Your task to perform on an android device: Open battery settings Image 0: 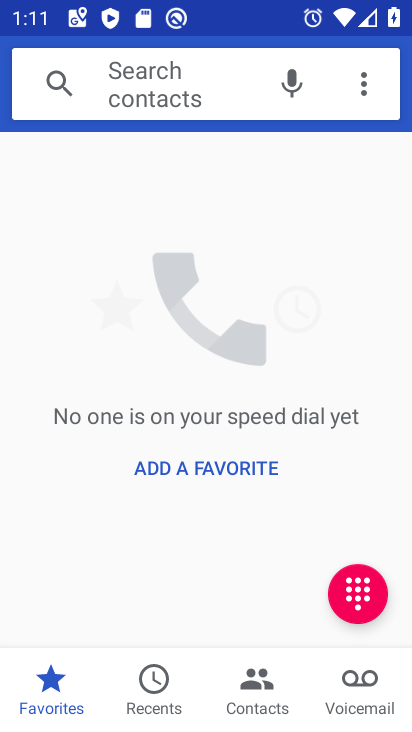
Step 0: press home button
Your task to perform on an android device: Open battery settings Image 1: 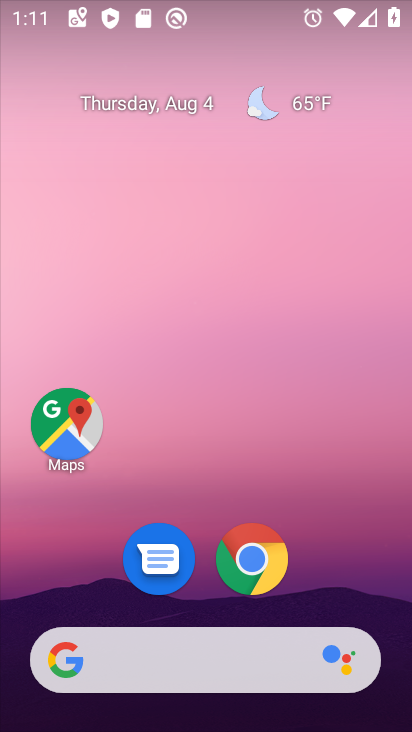
Step 1: drag from (210, 654) to (276, 98)
Your task to perform on an android device: Open battery settings Image 2: 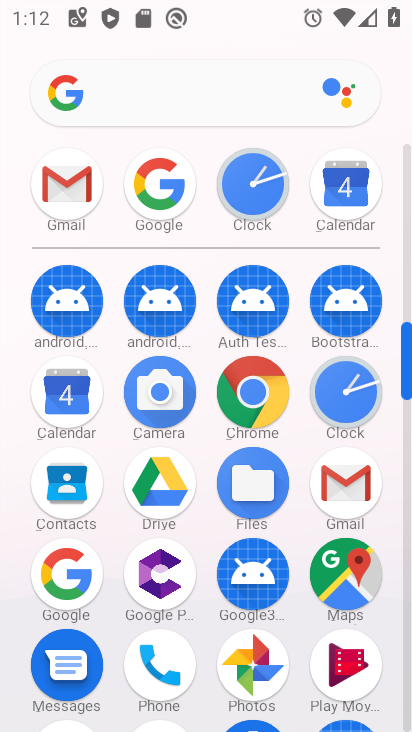
Step 2: drag from (212, 528) to (195, 288)
Your task to perform on an android device: Open battery settings Image 3: 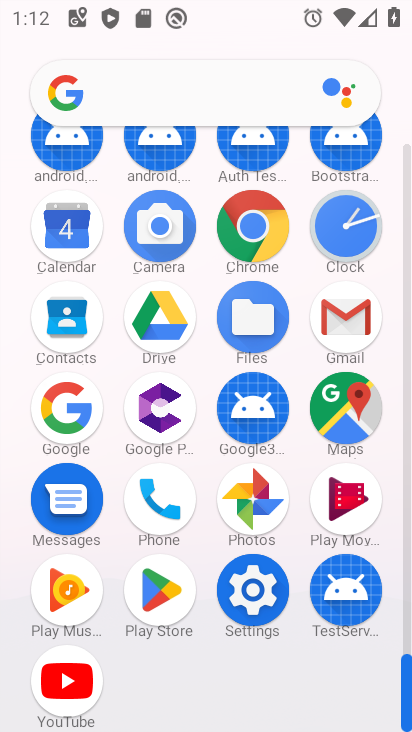
Step 3: click (252, 589)
Your task to perform on an android device: Open battery settings Image 4: 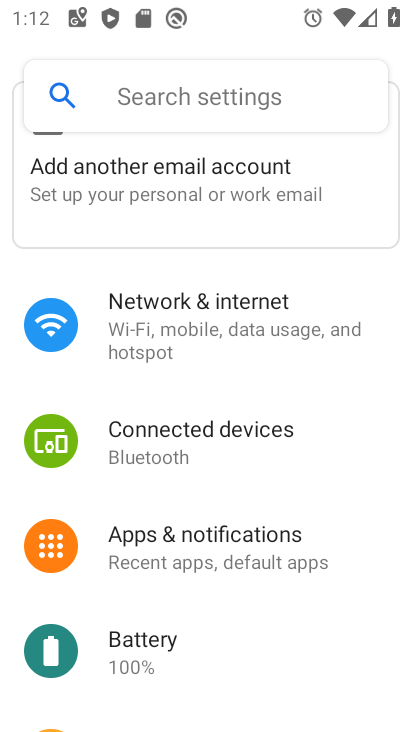
Step 4: drag from (183, 586) to (238, 463)
Your task to perform on an android device: Open battery settings Image 5: 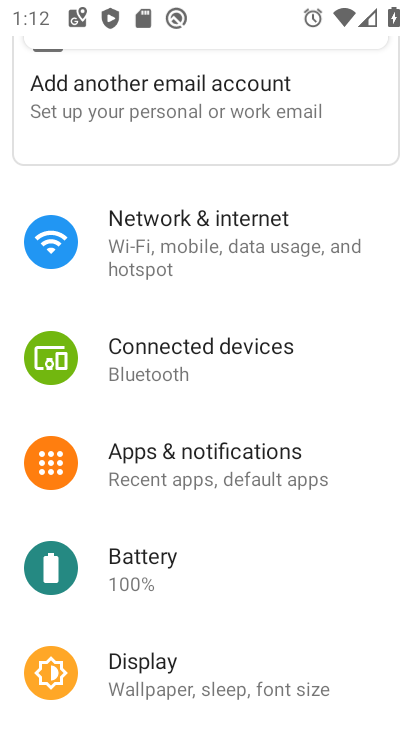
Step 5: click (163, 575)
Your task to perform on an android device: Open battery settings Image 6: 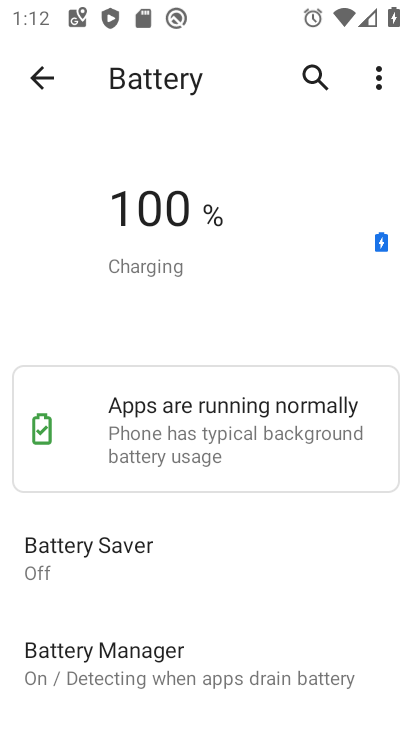
Step 6: task complete